Your task to perform on an android device: Open sound settings Image 0: 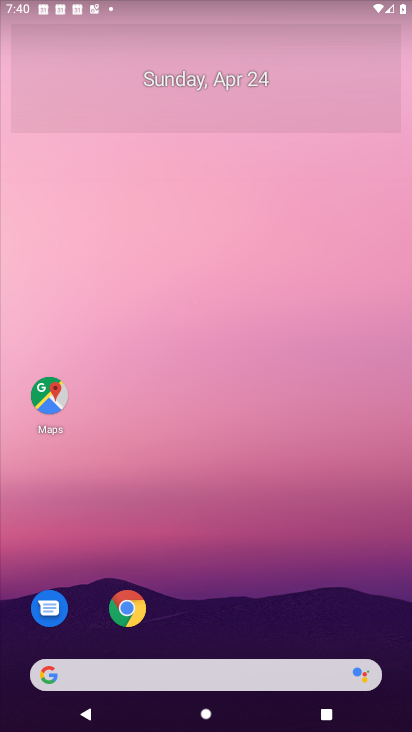
Step 0: drag from (266, 630) to (261, 176)
Your task to perform on an android device: Open sound settings Image 1: 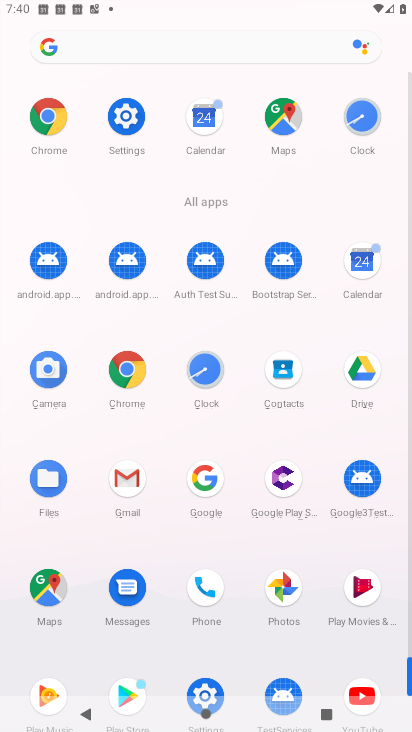
Step 1: click (127, 118)
Your task to perform on an android device: Open sound settings Image 2: 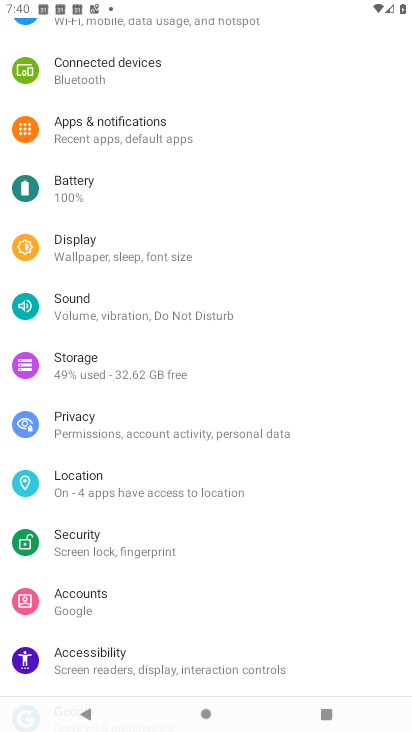
Step 2: click (86, 307)
Your task to perform on an android device: Open sound settings Image 3: 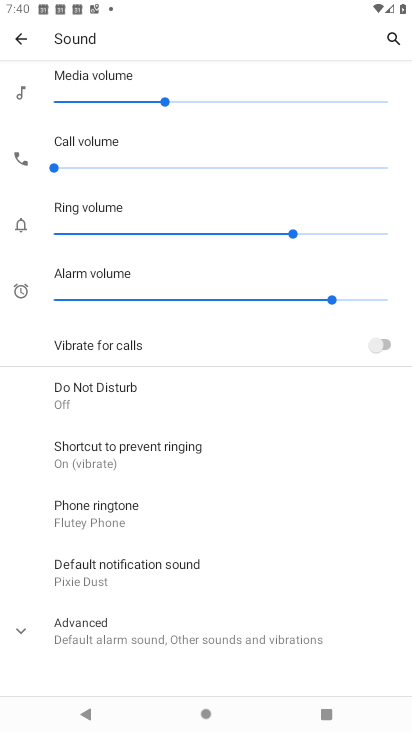
Step 3: task complete